Your task to perform on an android device: Open calendar and show me the fourth week of next month Image 0: 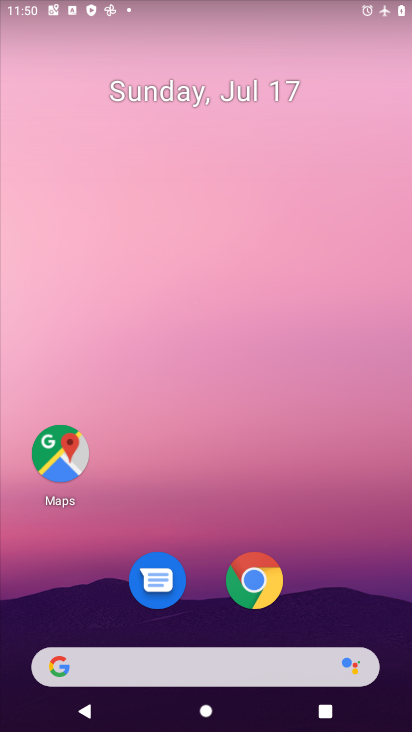
Step 0: drag from (235, 472) to (205, 67)
Your task to perform on an android device: Open calendar and show me the fourth week of next month Image 1: 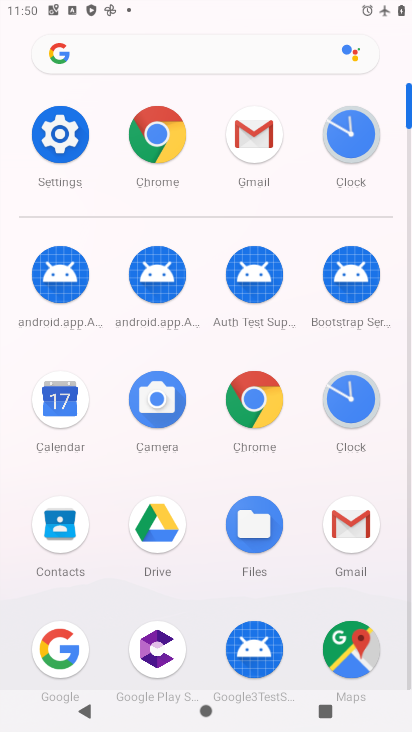
Step 1: click (63, 432)
Your task to perform on an android device: Open calendar and show me the fourth week of next month Image 2: 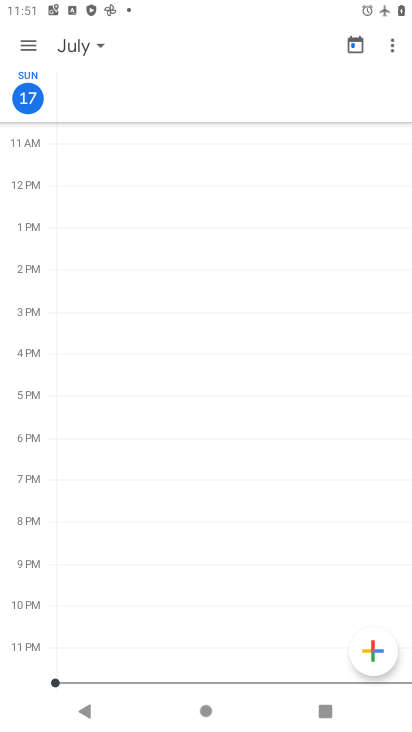
Step 2: click (79, 48)
Your task to perform on an android device: Open calendar and show me the fourth week of next month Image 3: 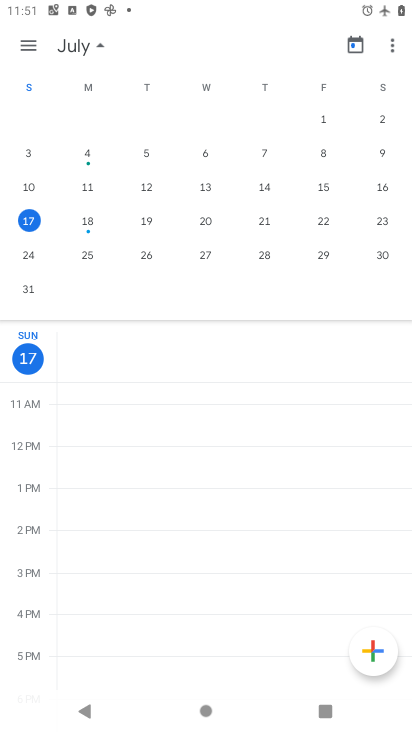
Step 3: drag from (267, 216) to (15, 157)
Your task to perform on an android device: Open calendar and show me the fourth week of next month Image 4: 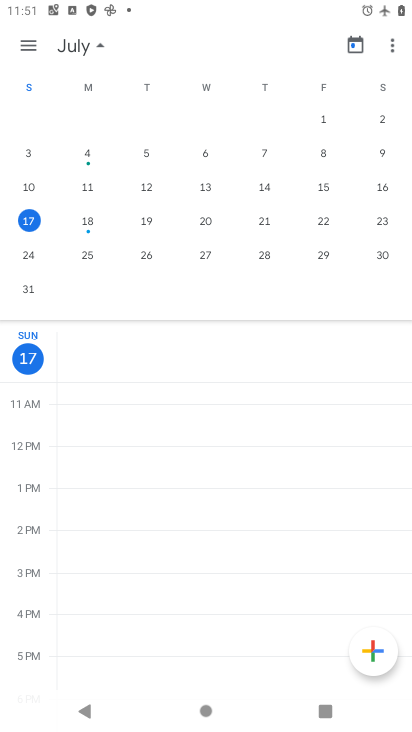
Step 4: drag from (316, 202) to (0, 170)
Your task to perform on an android device: Open calendar and show me the fourth week of next month Image 5: 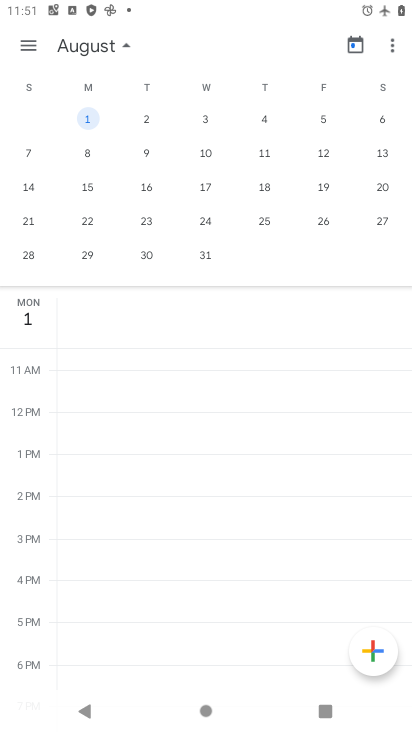
Step 5: click (84, 164)
Your task to perform on an android device: Open calendar and show me the fourth week of next month Image 6: 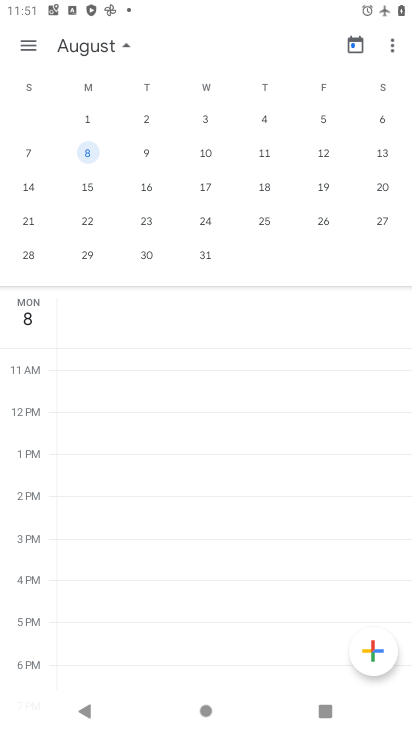
Step 6: task complete